Your task to perform on an android device: toggle improve location accuracy Image 0: 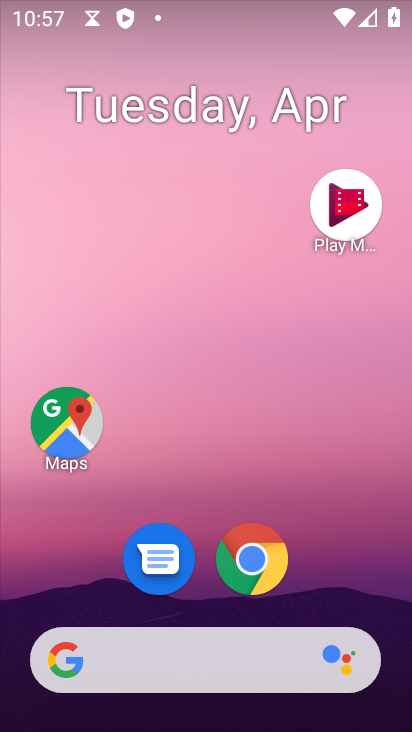
Step 0: drag from (322, 506) to (303, 78)
Your task to perform on an android device: toggle improve location accuracy Image 1: 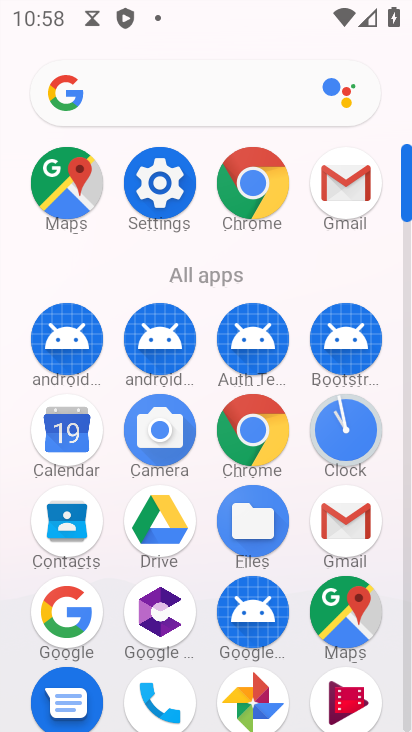
Step 1: click (166, 191)
Your task to perform on an android device: toggle improve location accuracy Image 2: 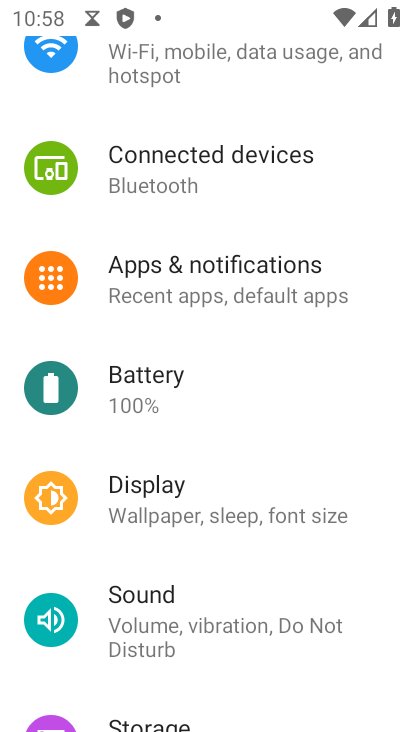
Step 2: drag from (202, 534) to (216, 258)
Your task to perform on an android device: toggle improve location accuracy Image 3: 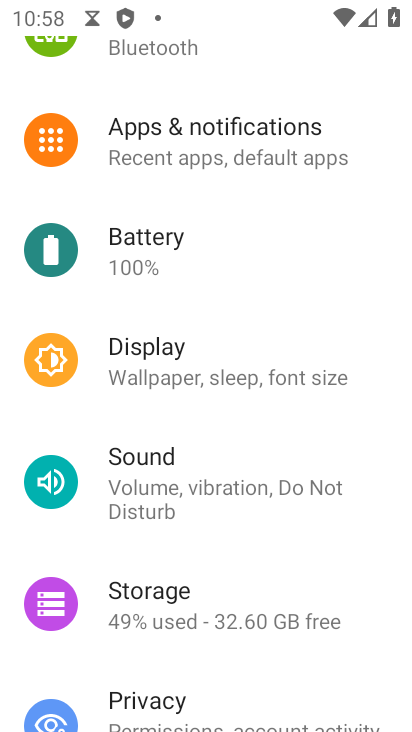
Step 3: drag from (209, 565) to (206, 372)
Your task to perform on an android device: toggle improve location accuracy Image 4: 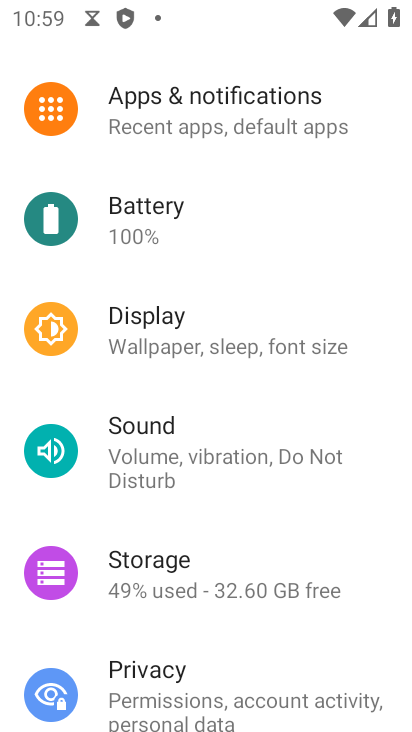
Step 4: drag from (245, 472) to (245, 181)
Your task to perform on an android device: toggle improve location accuracy Image 5: 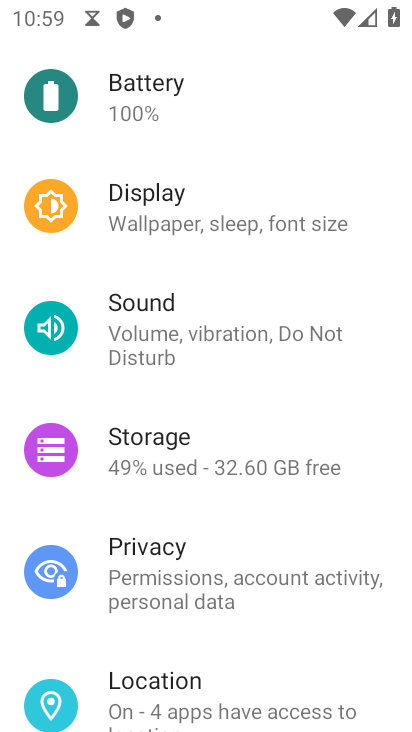
Step 5: click (274, 688)
Your task to perform on an android device: toggle improve location accuracy Image 6: 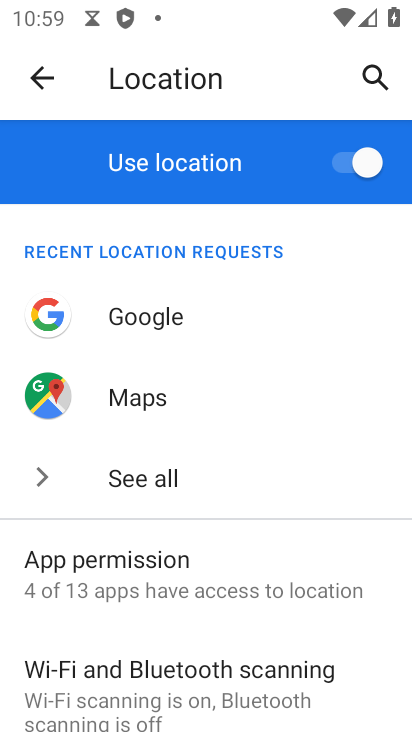
Step 6: drag from (263, 572) to (253, 170)
Your task to perform on an android device: toggle improve location accuracy Image 7: 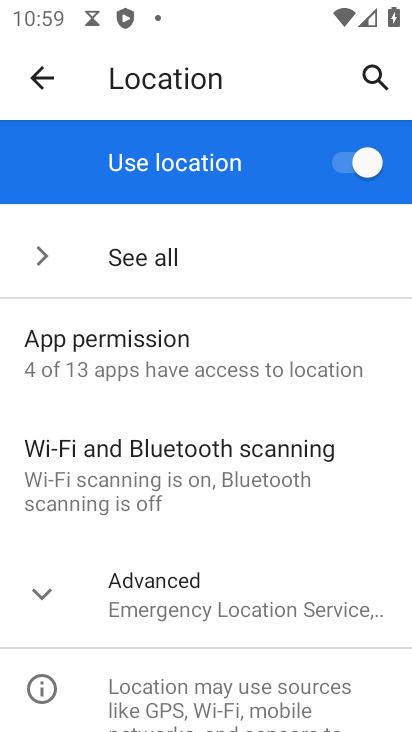
Step 7: click (216, 606)
Your task to perform on an android device: toggle improve location accuracy Image 8: 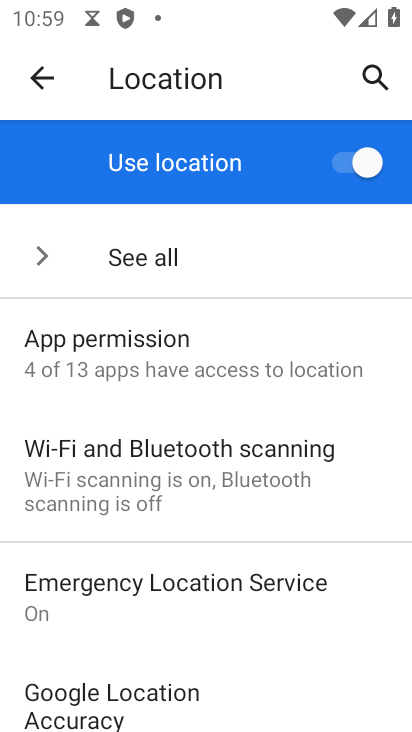
Step 8: click (185, 692)
Your task to perform on an android device: toggle improve location accuracy Image 9: 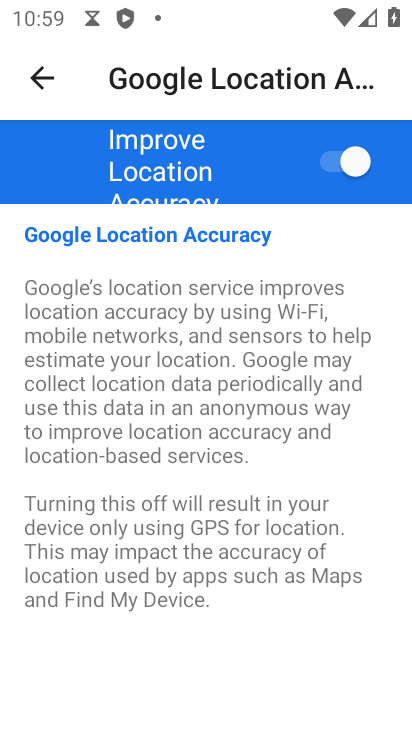
Step 9: click (329, 159)
Your task to perform on an android device: toggle improve location accuracy Image 10: 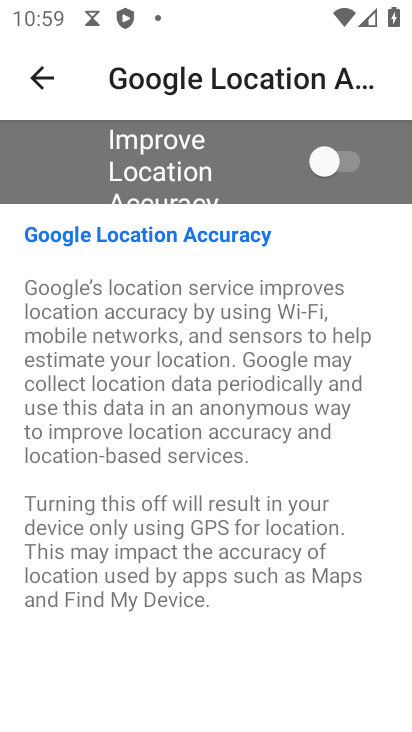
Step 10: task complete